Your task to perform on an android device: open app "Adobe Acrobat Reader" (install if not already installed) Image 0: 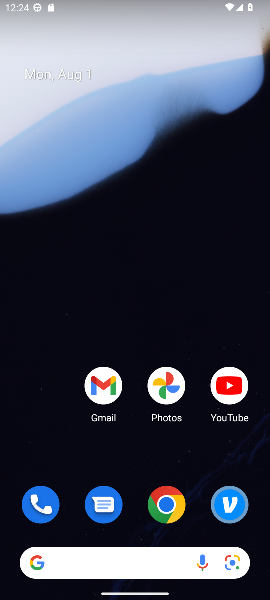
Step 0: drag from (129, 555) to (155, 58)
Your task to perform on an android device: open app "Adobe Acrobat Reader" (install if not already installed) Image 1: 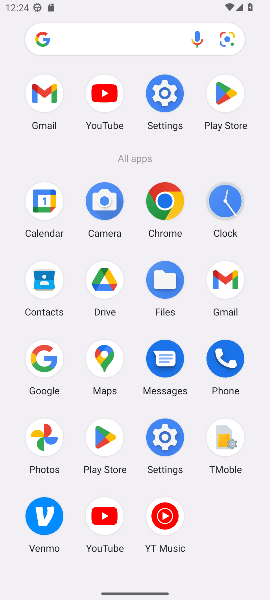
Step 1: click (217, 93)
Your task to perform on an android device: open app "Adobe Acrobat Reader" (install if not already installed) Image 2: 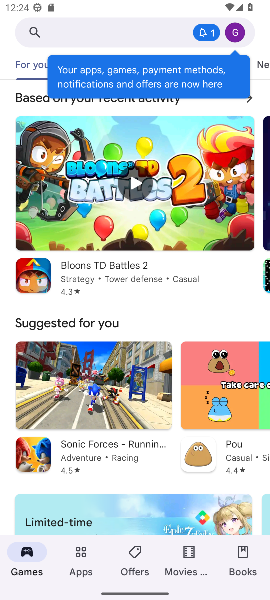
Step 2: click (182, 37)
Your task to perform on an android device: open app "Adobe Acrobat Reader" (install if not already installed) Image 3: 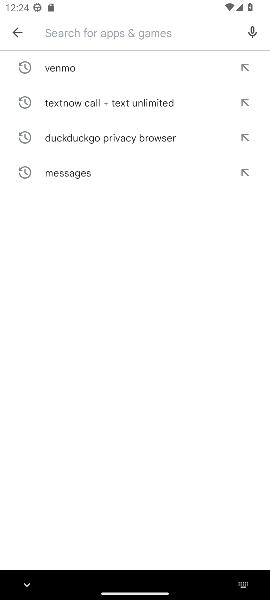
Step 3: type "adobe acrobat reader"
Your task to perform on an android device: open app "Adobe Acrobat Reader" (install if not already installed) Image 4: 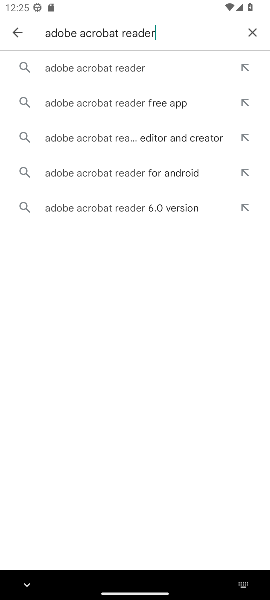
Step 4: click (146, 57)
Your task to perform on an android device: open app "Adobe Acrobat Reader" (install if not already installed) Image 5: 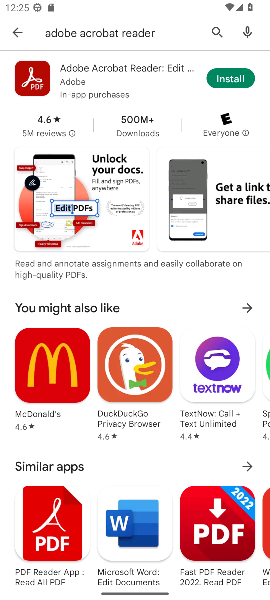
Step 5: click (232, 76)
Your task to perform on an android device: open app "Adobe Acrobat Reader" (install if not already installed) Image 6: 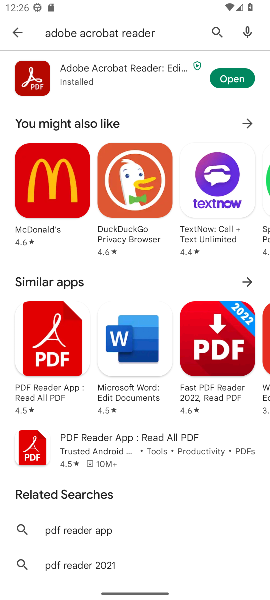
Step 6: click (232, 76)
Your task to perform on an android device: open app "Adobe Acrobat Reader" (install if not already installed) Image 7: 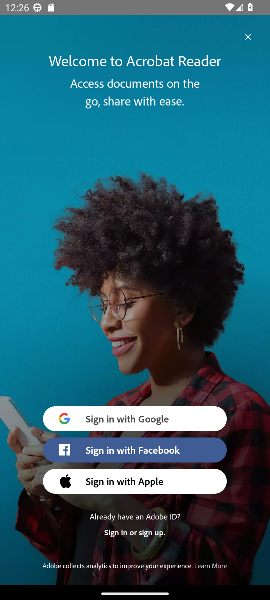
Step 7: task complete